Your task to perform on an android device: turn smart compose on in the gmail app Image 0: 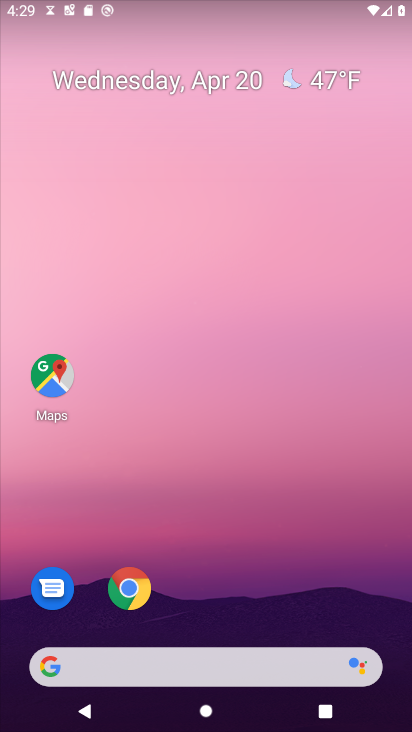
Step 0: drag from (337, 344) to (364, 57)
Your task to perform on an android device: turn smart compose on in the gmail app Image 1: 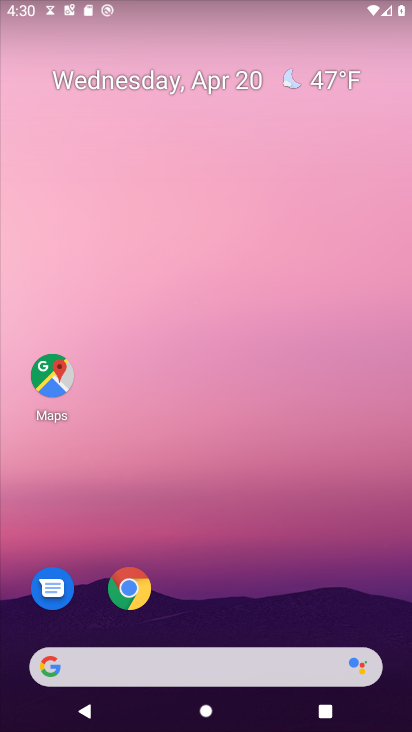
Step 1: drag from (268, 548) to (272, 33)
Your task to perform on an android device: turn smart compose on in the gmail app Image 2: 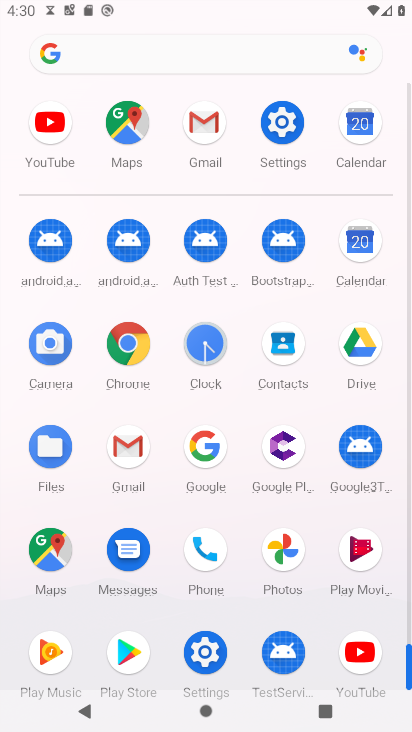
Step 2: click (200, 129)
Your task to perform on an android device: turn smart compose on in the gmail app Image 3: 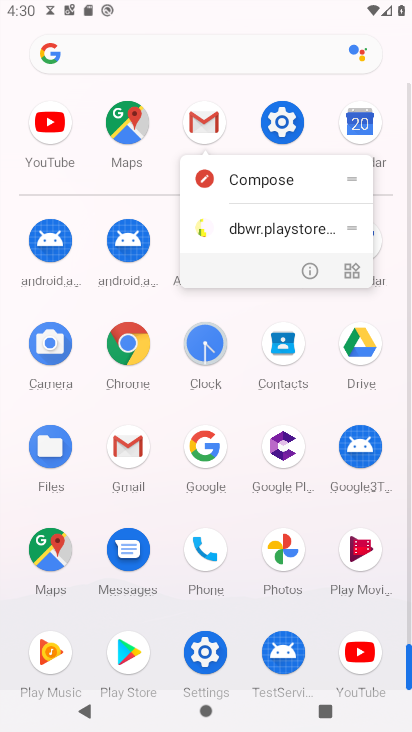
Step 3: click (200, 128)
Your task to perform on an android device: turn smart compose on in the gmail app Image 4: 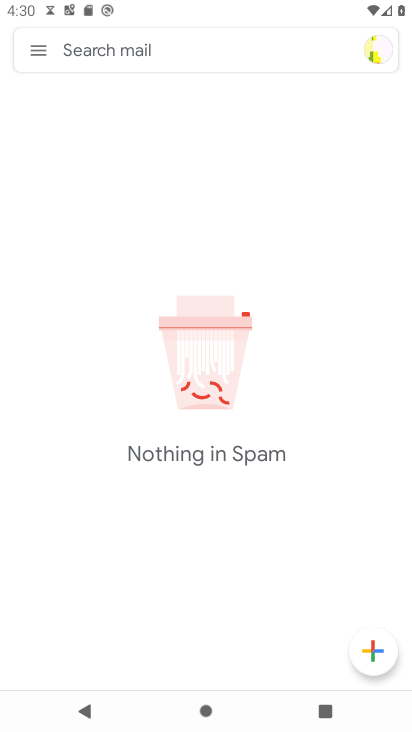
Step 4: click (48, 59)
Your task to perform on an android device: turn smart compose on in the gmail app Image 5: 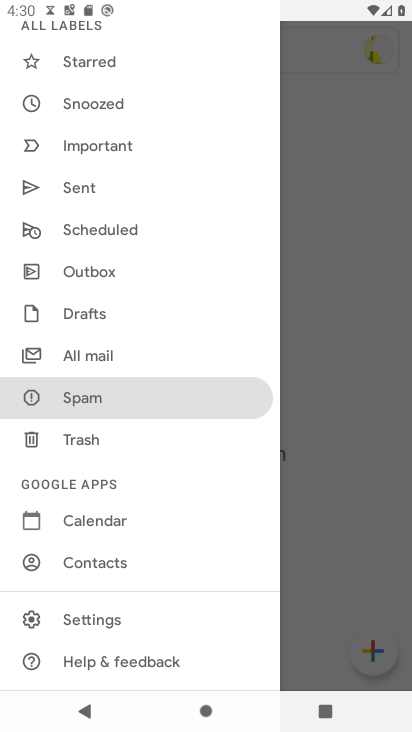
Step 5: click (136, 617)
Your task to perform on an android device: turn smart compose on in the gmail app Image 6: 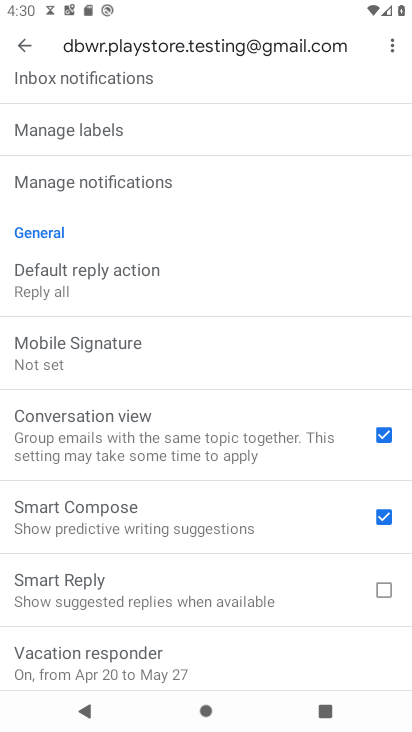
Step 6: task complete